Your task to perform on an android device: Go to accessibility settings Image 0: 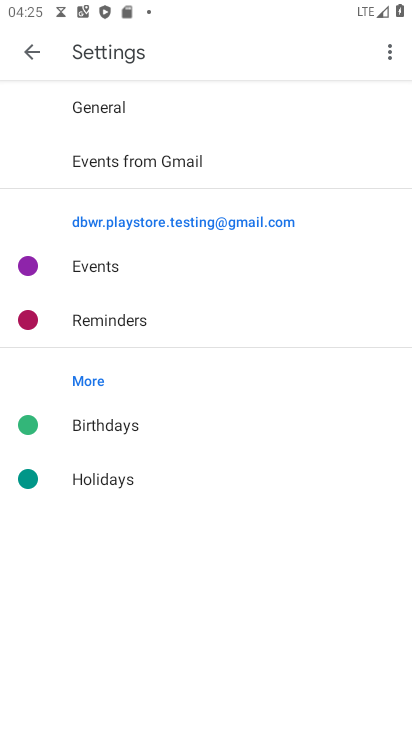
Step 0: press back button
Your task to perform on an android device: Go to accessibility settings Image 1: 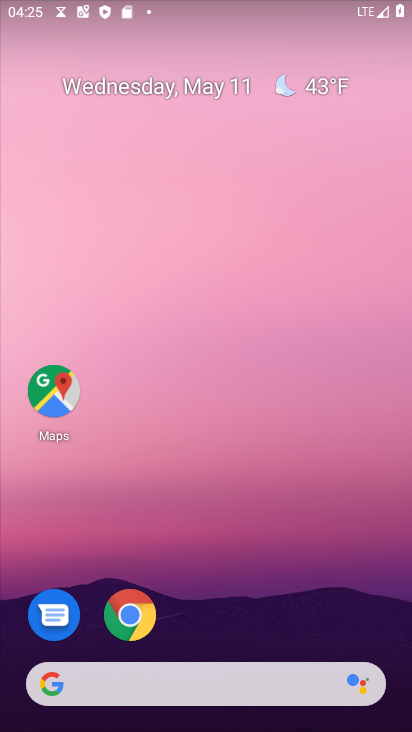
Step 1: drag from (276, 602) to (202, 97)
Your task to perform on an android device: Go to accessibility settings Image 2: 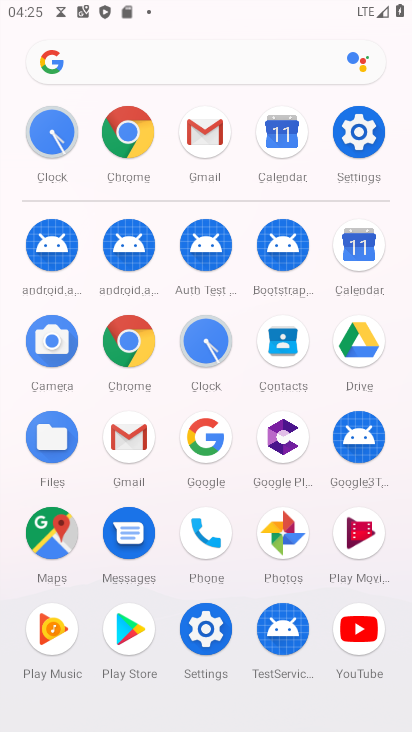
Step 2: click (207, 625)
Your task to perform on an android device: Go to accessibility settings Image 3: 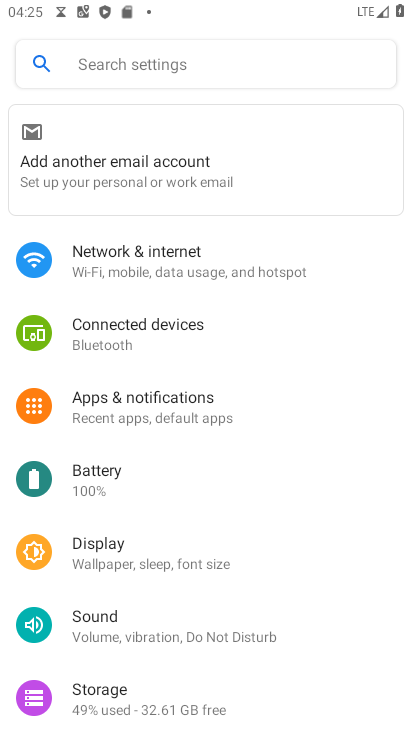
Step 3: drag from (224, 565) to (245, 256)
Your task to perform on an android device: Go to accessibility settings Image 4: 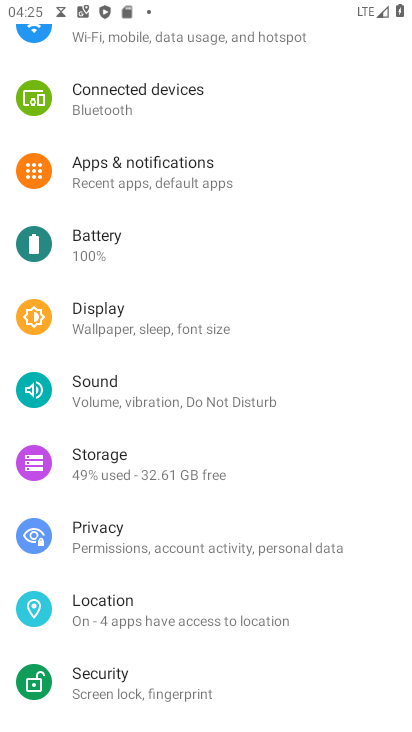
Step 4: drag from (252, 540) to (248, 193)
Your task to perform on an android device: Go to accessibility settings Image 5: 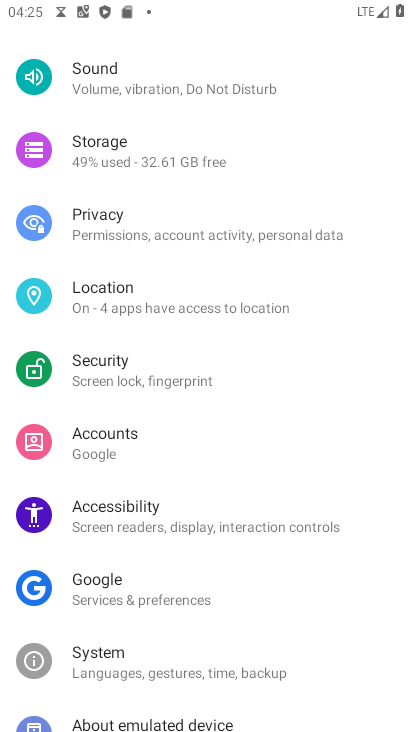
Step 5: drag from (228, 570) to (247, 129)
Your task to perform on an android device: Go to accessibility settings Image 6: 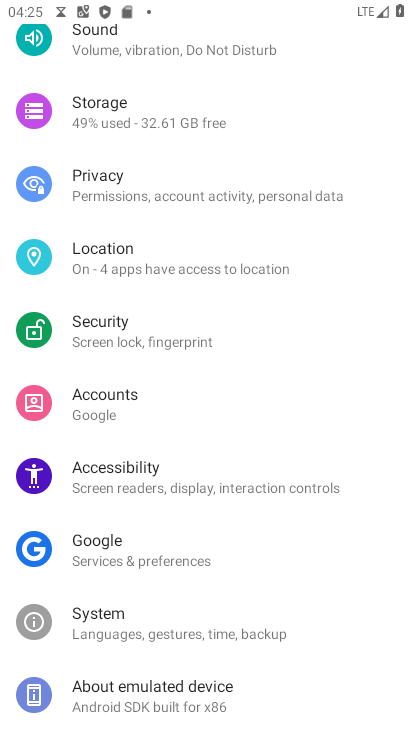
Step 6: click (148, 463)
Your task to perform on an android device: Go to accessibility settings Image 7: 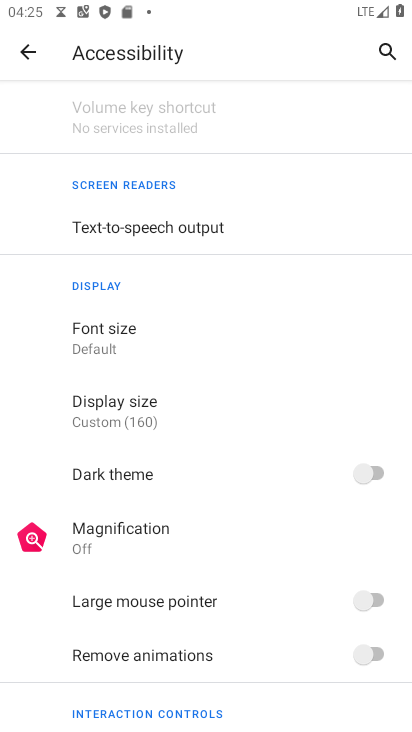
Step 7: task complete